Your task to perform on an android device: Go to notification settings Image 0: 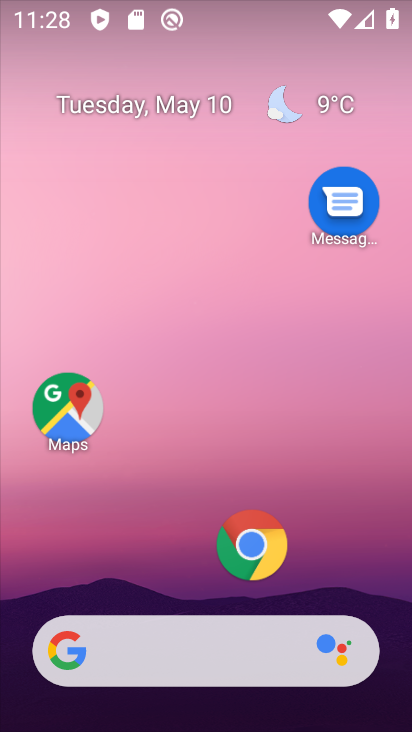
Step 0: drag from (153, 636) to (262, 140)
Your task to perform on an android device: Go to notification settings Image 1: 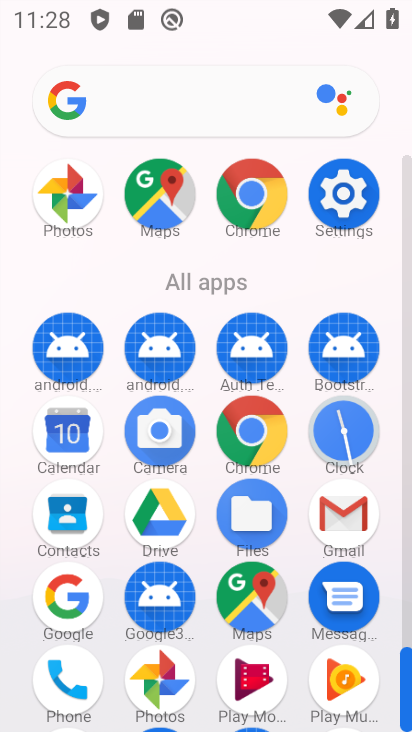
Step 1: click (355, 208)
Your task to perform on an android device: Go to notification settings Image 2: 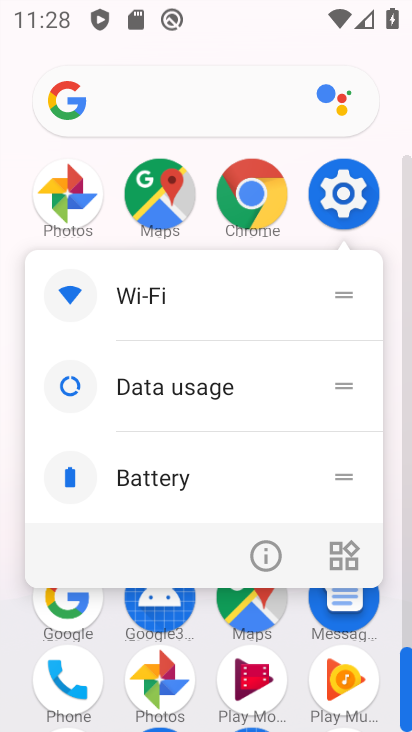
Step 2: click (349, 184)
Your task to perform on an android device: Go to notification settings Image 3: 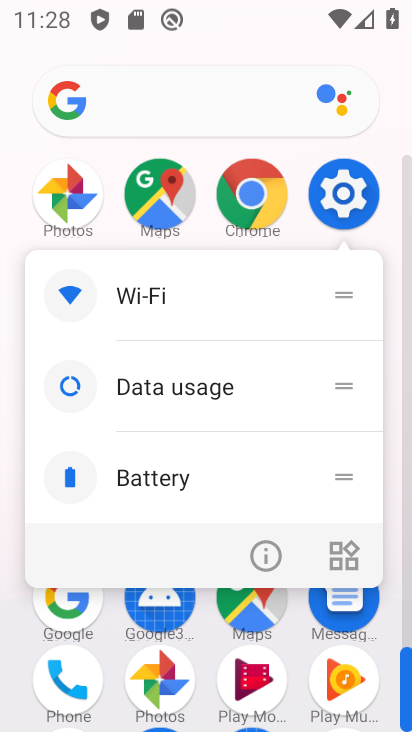
Step 3: click (342, 192)
Your task to perform on an android device: Go to notification settings Image 4: 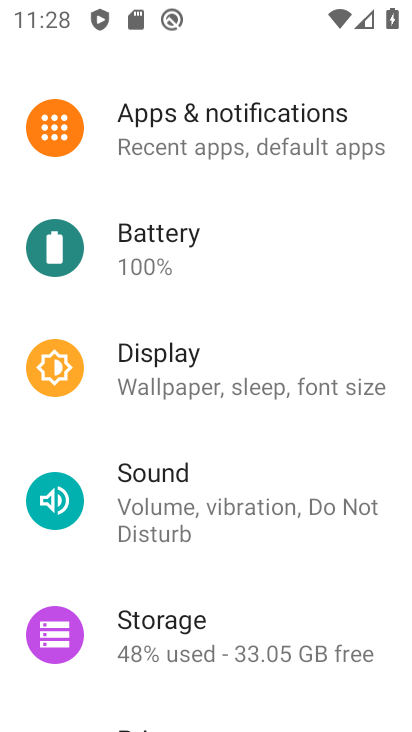
Step 4: click (214, 151)
Your task to perform on an android device: Go to notification settings Image 5: 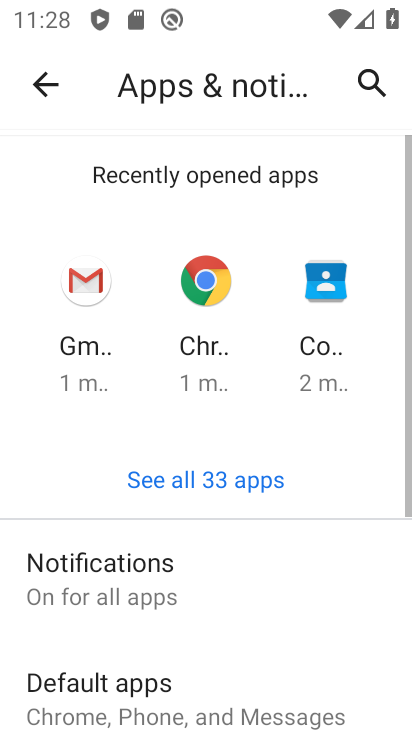
Step 5: click (148, 586)
Your task to perform on an android device: Go to notification settings Image 6: 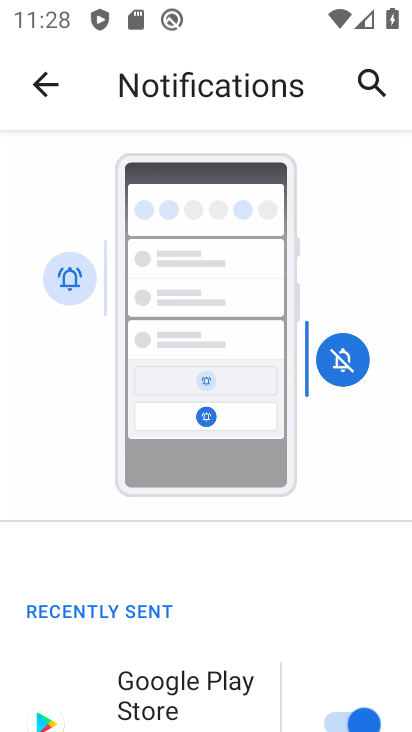
Step 6: task complete